Your task to perform on an android device: Search for Mexican restaurants on Maps Image 0: 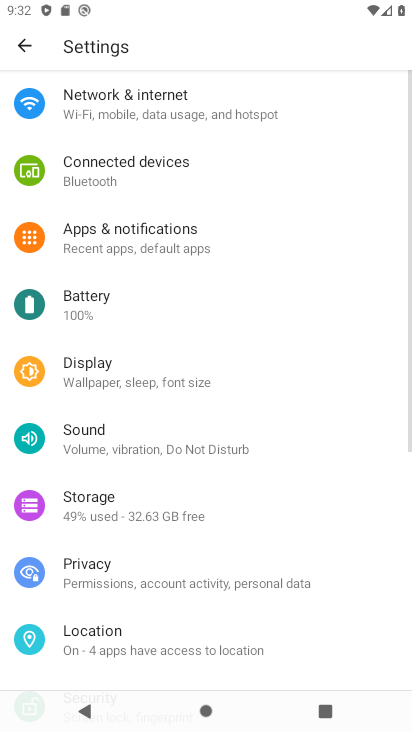
Step 0: press home button
Your task to perform on an android device: Search for Mexican restaurants on Maps Image 1: 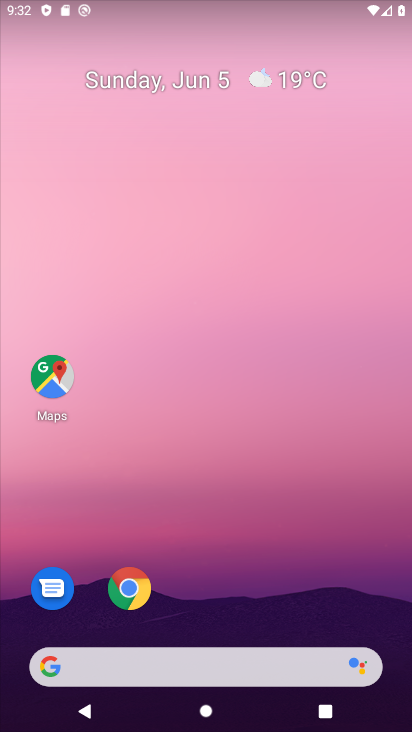
Step 1: drag from (321, 593) to (343, 148)
Your task to perform on an android device: Search for Mexican restaurants on Maps Image 2: 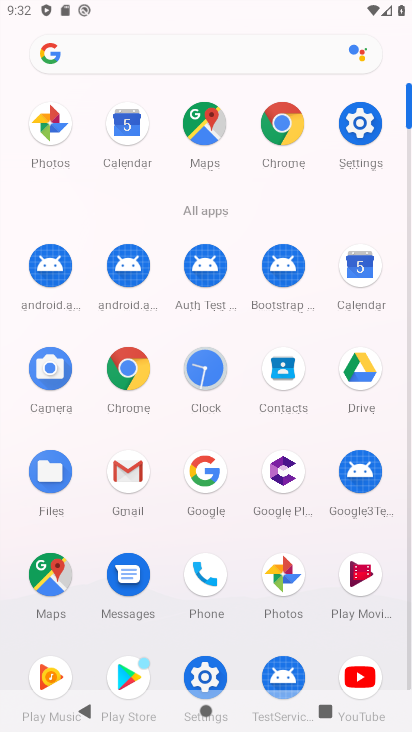
Step 2: click (52, 590)
Your task to perform on an android device: Search for Mexican restaurants on Maps Image 3: 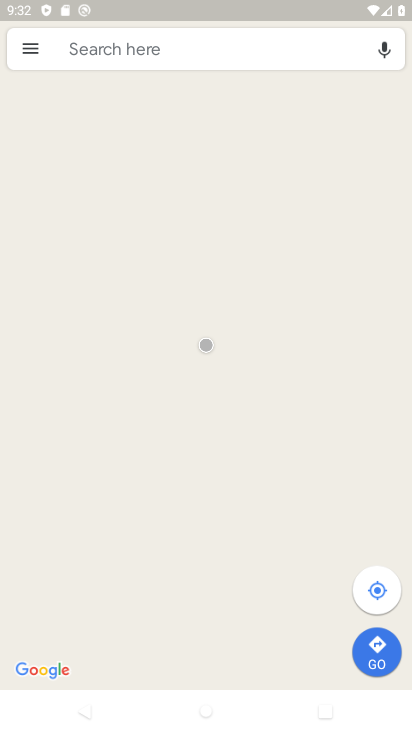
Step 3: click (172, 58)
Your task to perform on an android device: Search for Mexican restaurants on Maps Image 4: 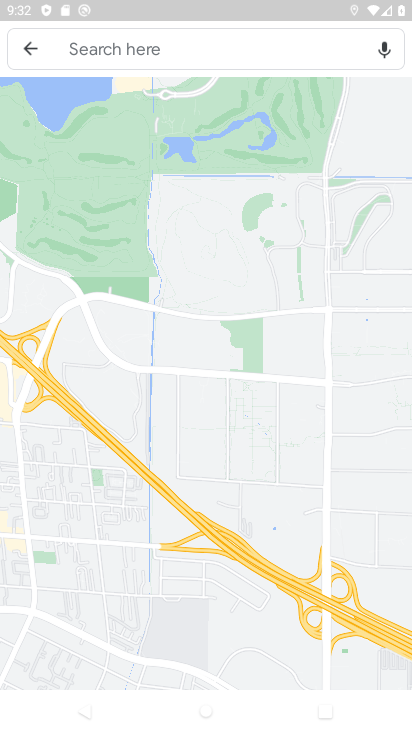
Step 4: click (162, 45)
Your task to perform on an android device: Search for Mexican restaurants on Maps Image 5: 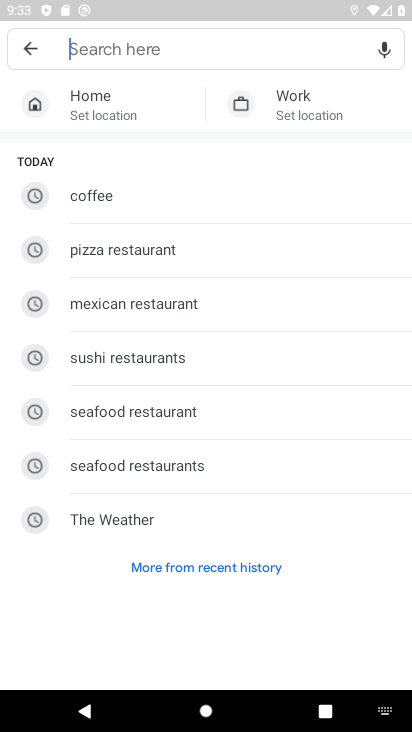
Step 5: type "mexcian restaurants"
Your task to perform on an android device: Search for Mexican restaurants on Maps Image 6: 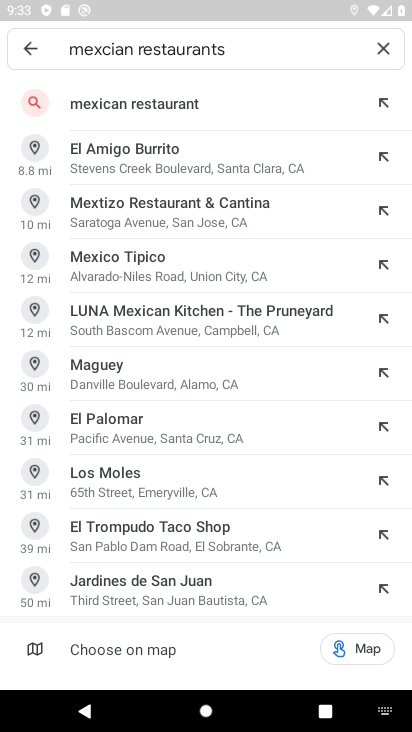
Step 6: click (233, 116)
Your task to perform on an android device: Search for Mexican restaurants on Maps Image 7: 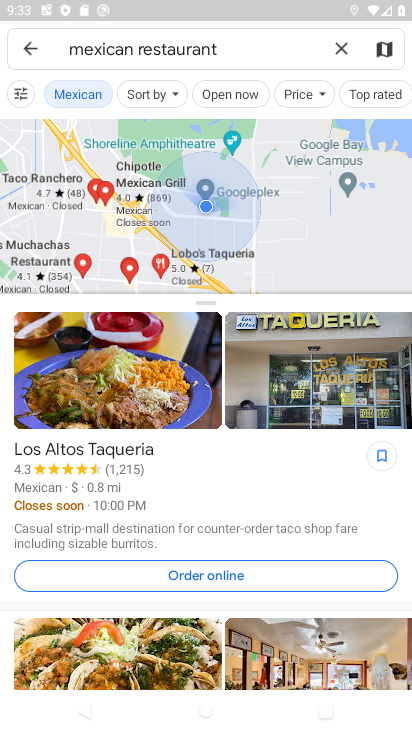
Step 7: task complete